Your task to perform on an android device: turn on bluetooth scan Image 0: 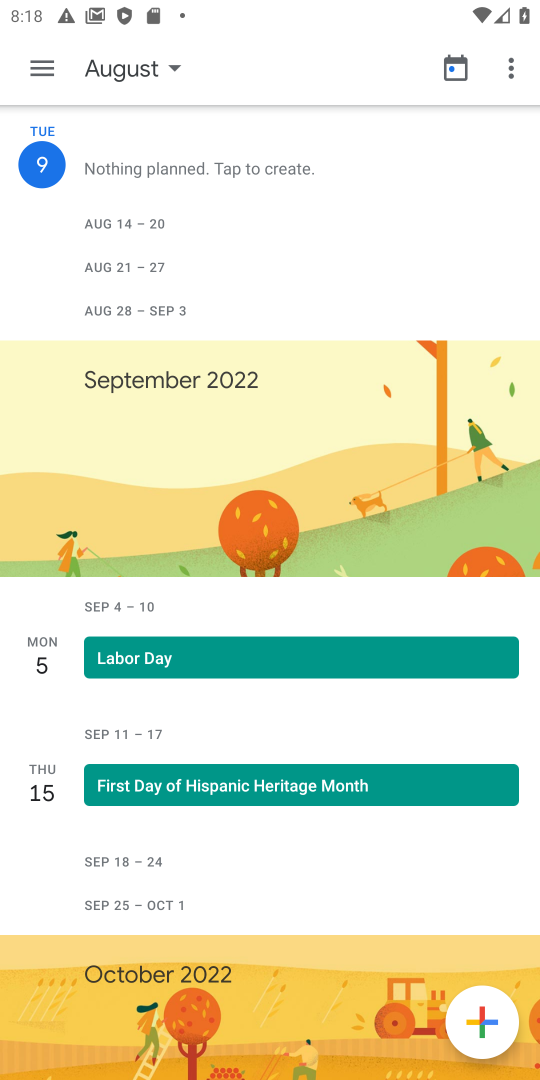
Step 0: press home button
Your task to perform on an android device: turn on bluetooth scan Image 1: 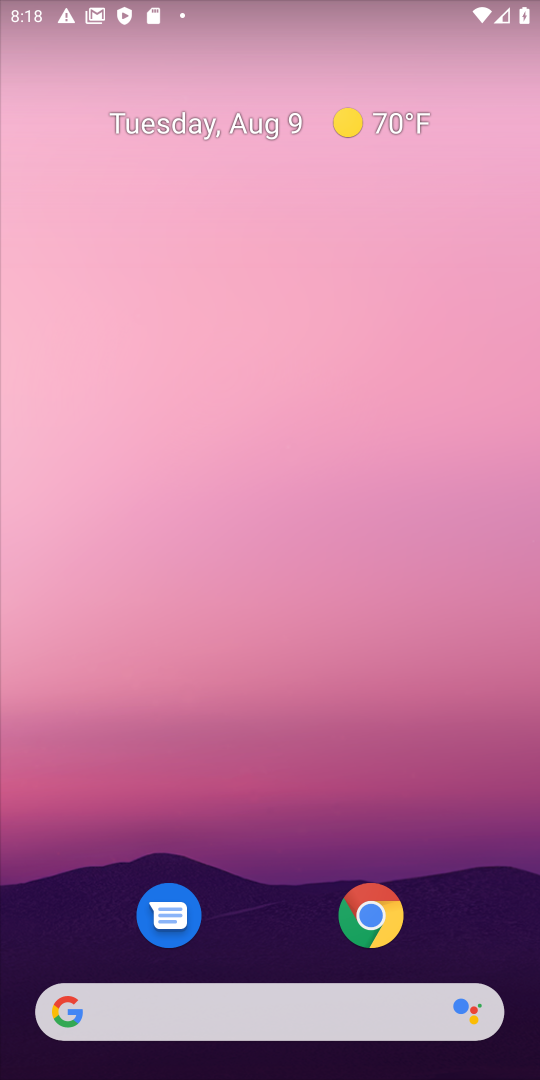
Step 1: drag from (269, 919) to (283, 51)
Your task to perform on an android device: turn on bluetooth scan Image 2: 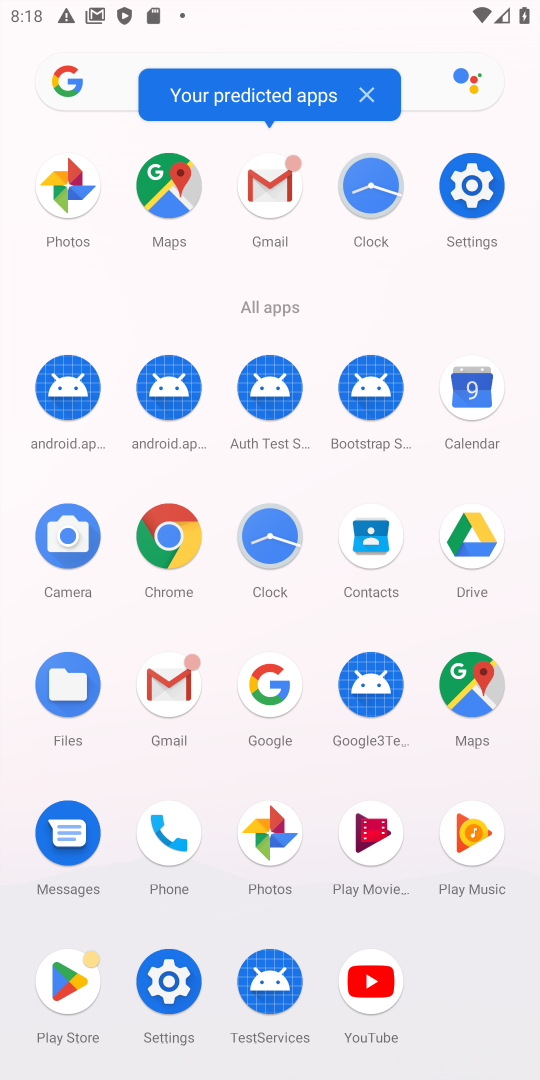
Step 2: click (453, 193)
Your task to perform on an android device: turn on bluetooth scan Image 3: 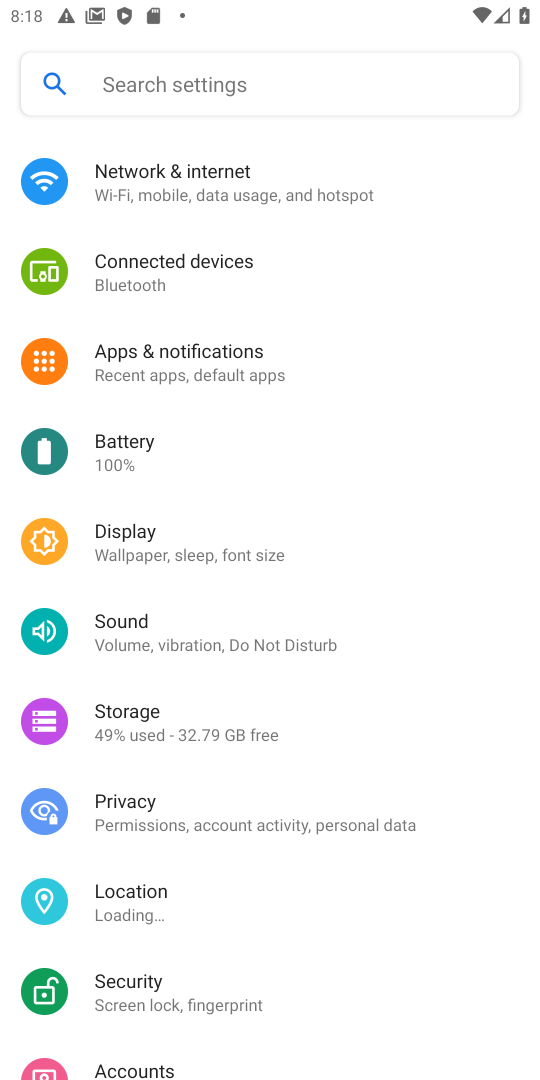
Step 3: click (313, 105)
Your task to perform on an android device: turn on bluetooth scan Image 4: 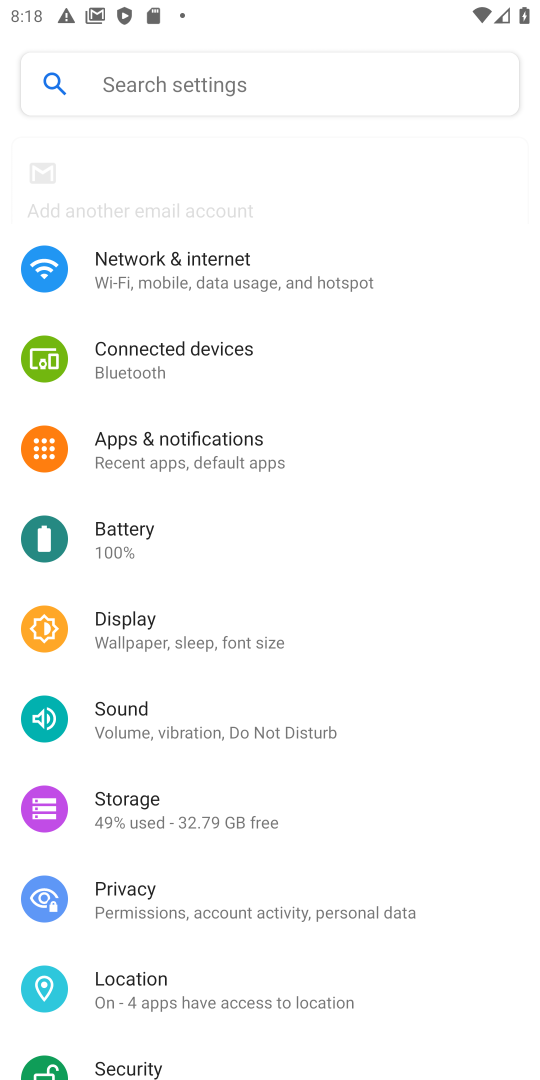
Step 4: click (286, 87)
Your task to perform on an android device: turn on bluetooth scan Image 5: 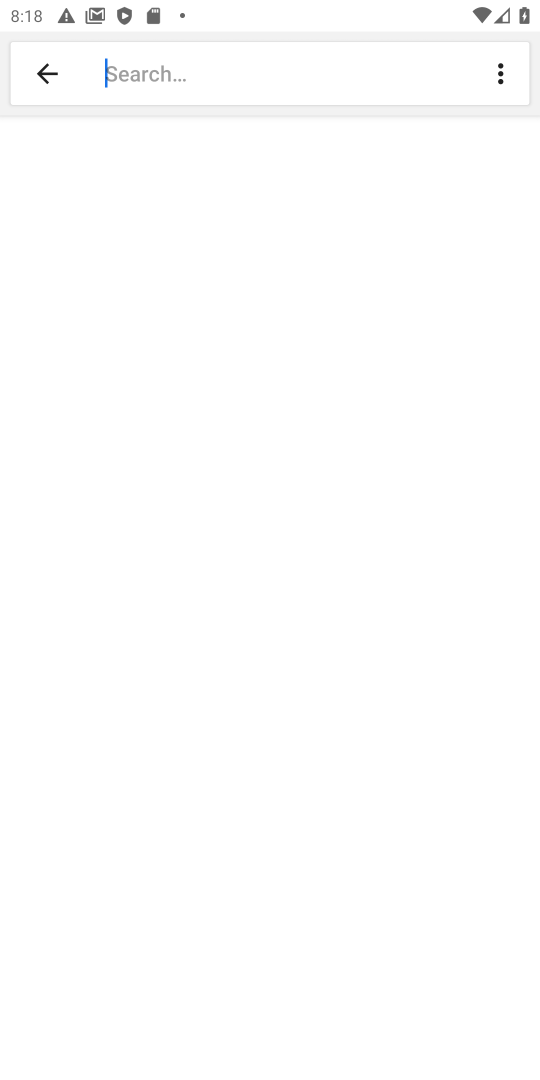
Step 5: type "bluetooth scan"
Your task to perform on an android device: turn on bluetooth scan Image 6: 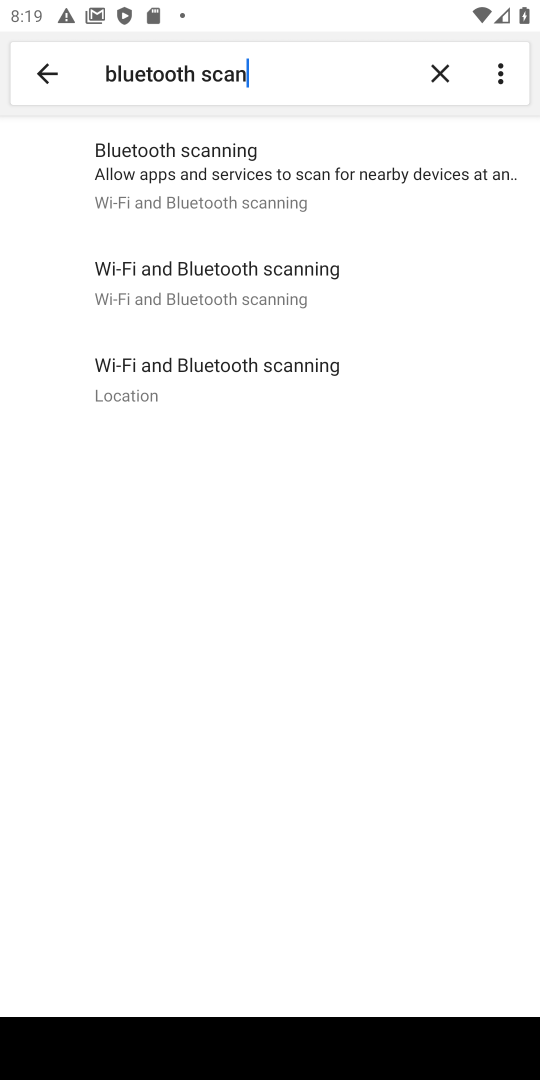
Step 6: click (191, 285)
Your task to perform on an android device: turn on bluetooth scan Image 7: 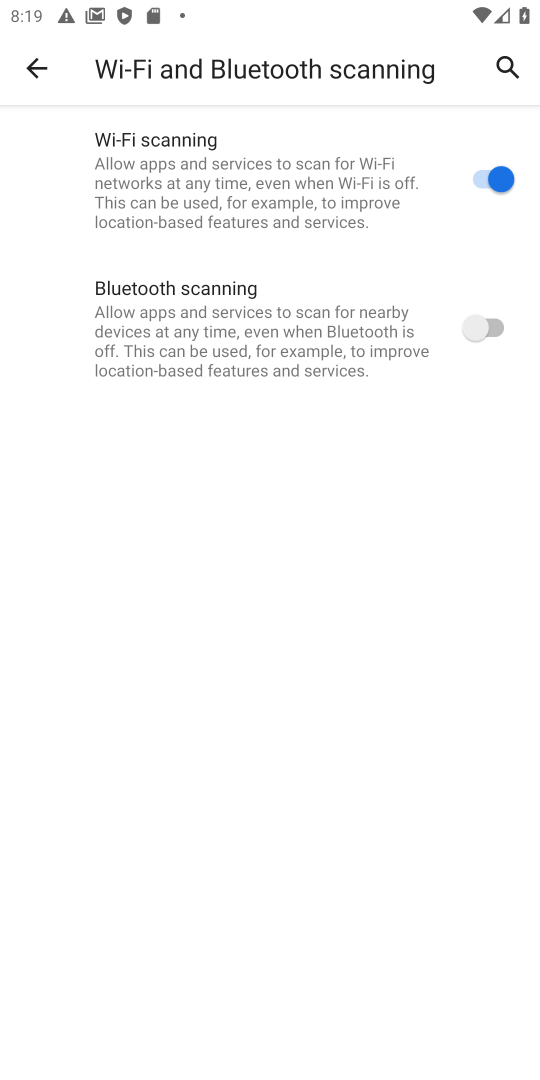
Step 7: click (476, 327)
Your task to perform on an android device: turn on bluetooth scan Image 8: 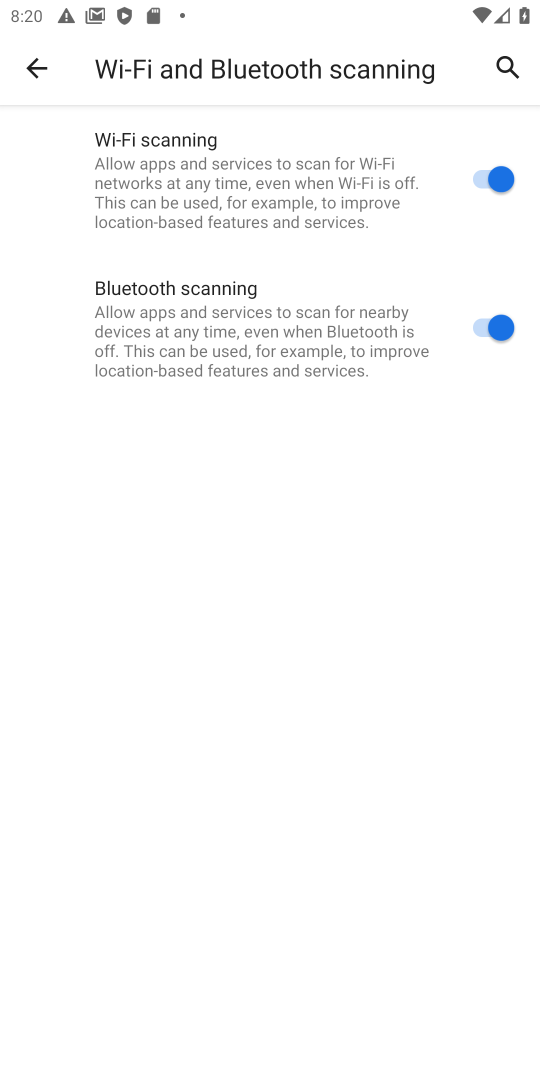
Step 8: task complete